Your task to perform on an android device: delete location history Image 0: 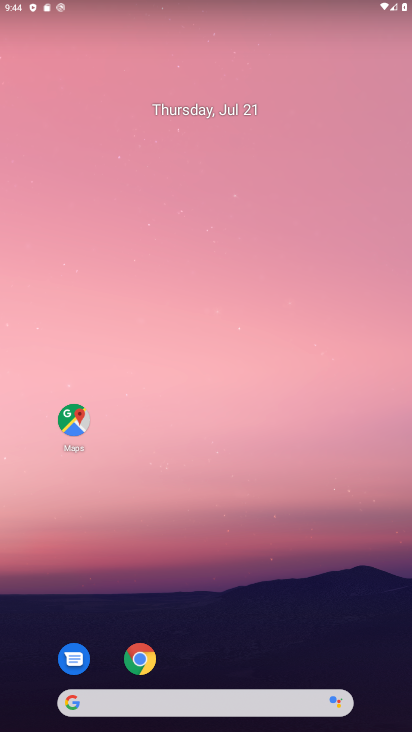
Step 0: task complete